Your task to perform on an android device: change the clock display to digital Image 0: 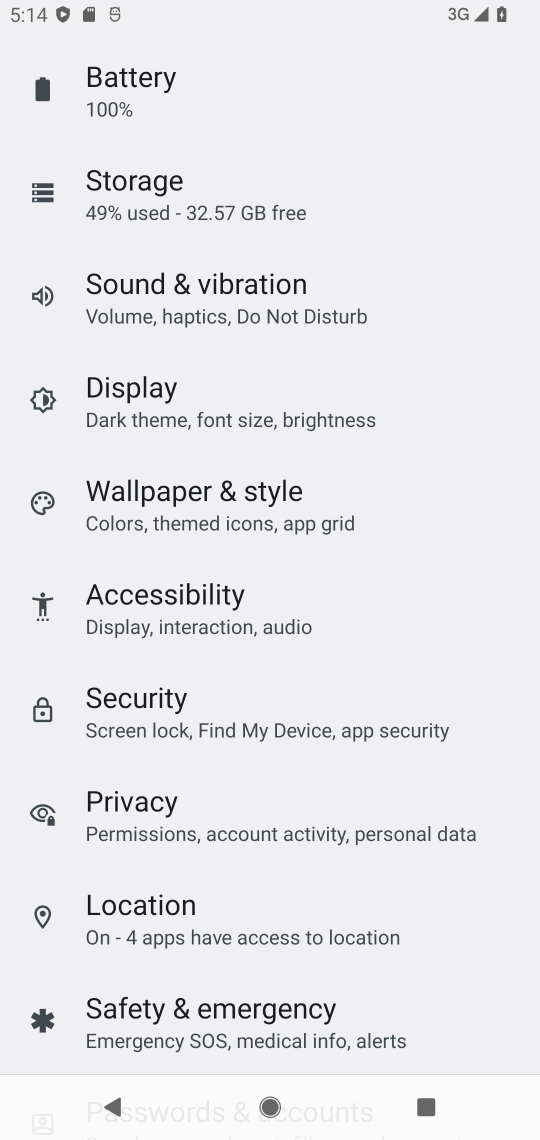
Step 0: press home button
Your task to perform on an android device: change the clock display to digital Image 1: 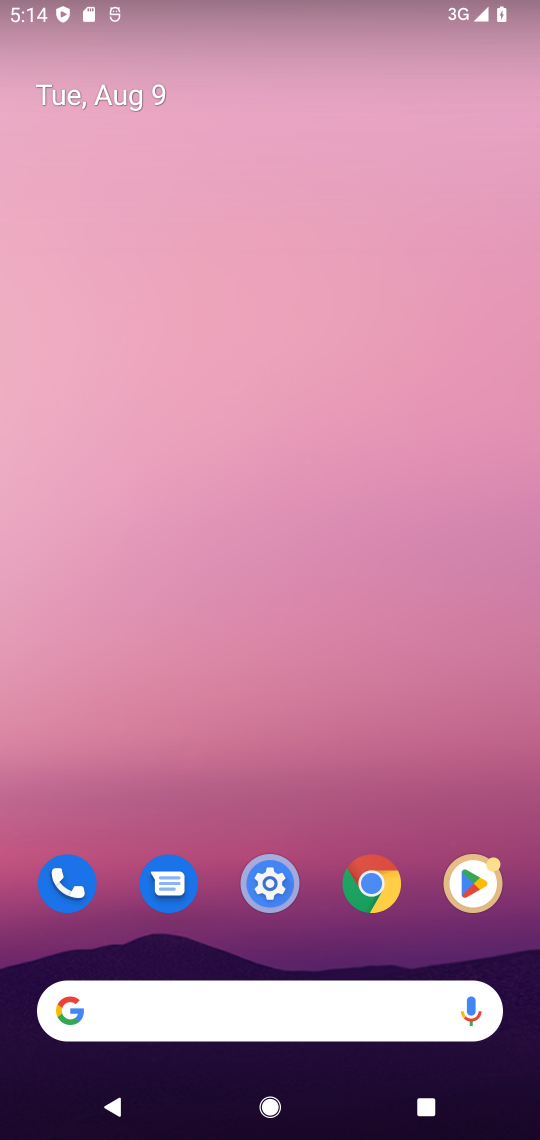
Step 1: drag from (314, 778) to (293, 166)
Your task to perform on an android device: change the clock display to digital Image 2: 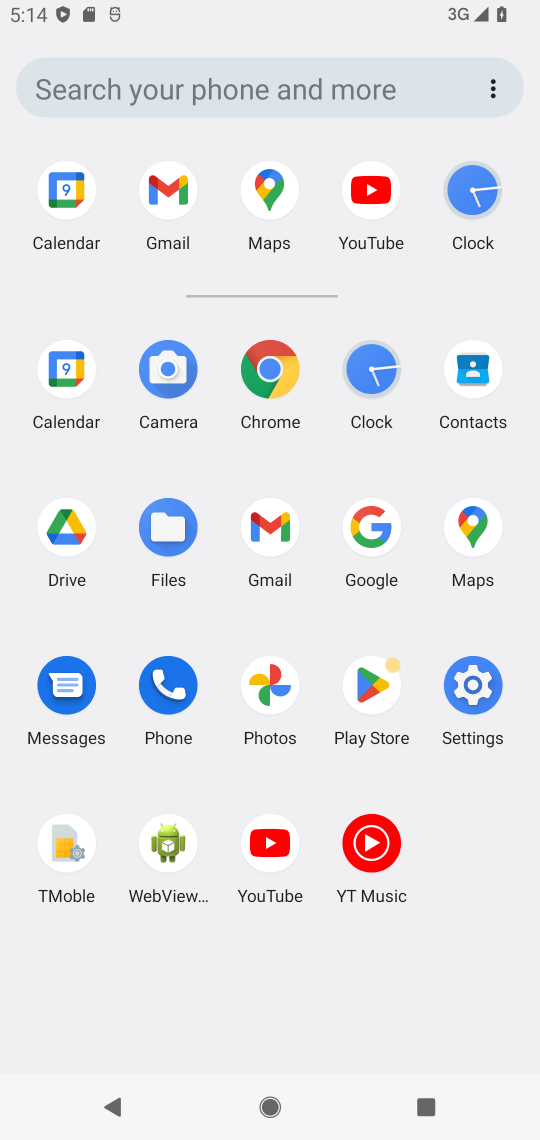
Step 2: click (368, 350)
Your task to perform on an android device: change the clock display to digital Image 3: 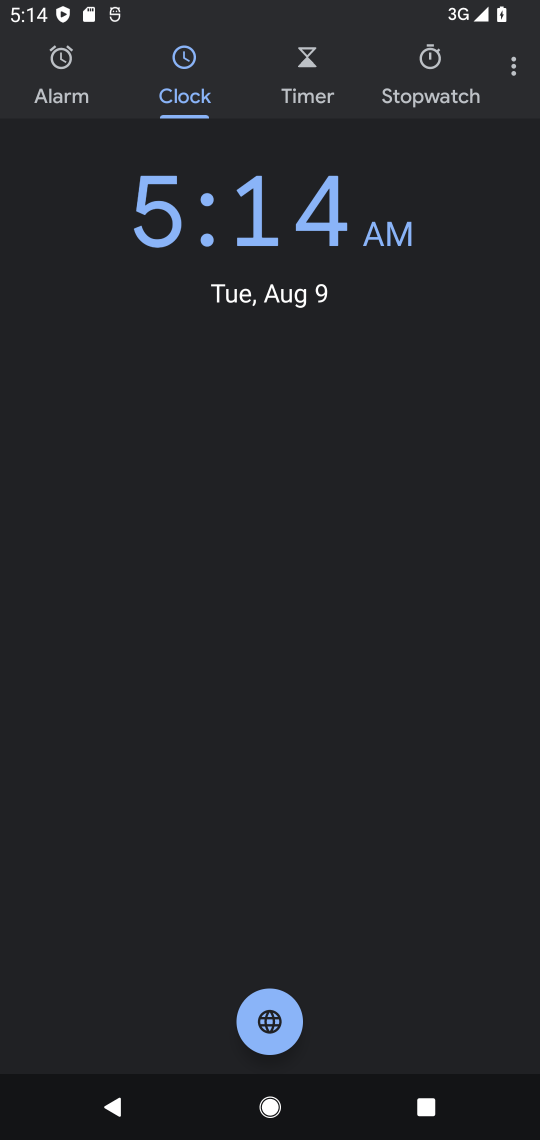
Step 3: click (503, 51)
Your task to perform on an android device: change the clock display to digital Image 4: 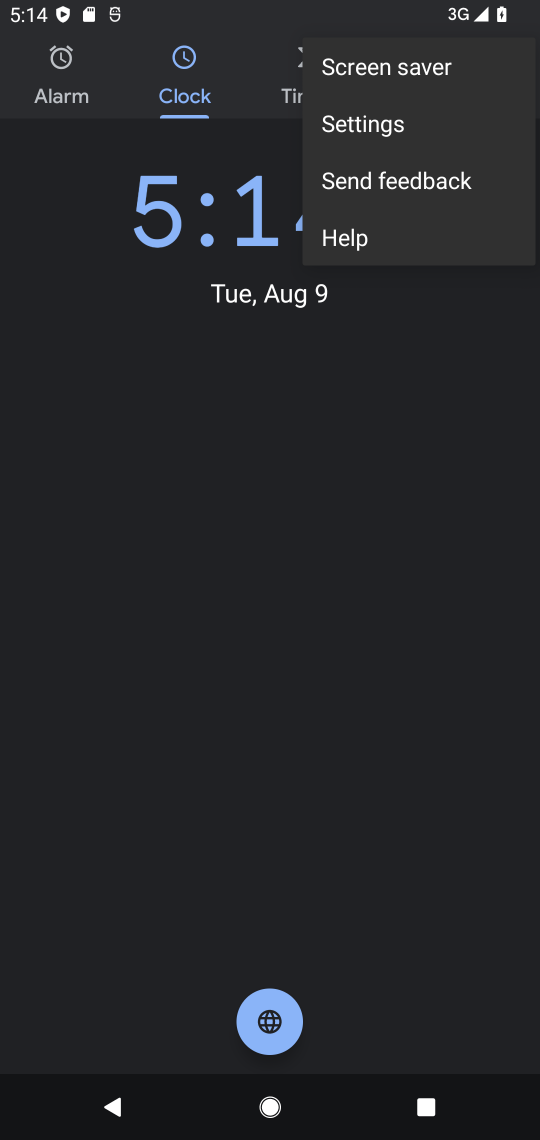
Step 4: click (386, 134)
Your task to perform on an android device: change the clock display to digital Image 5: 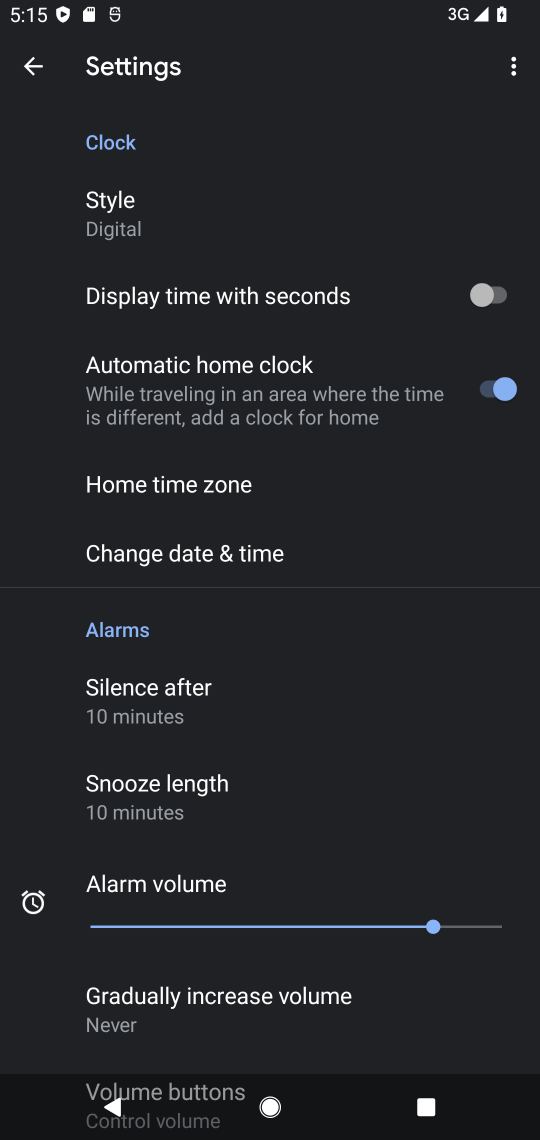
Step 5: task complete